Your task to perform on an android device: What is the recent news? Image 0: 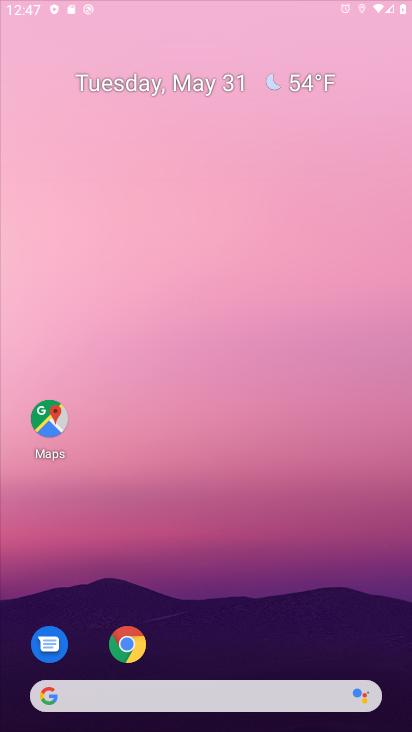
Step 0: press home button
Your task to perform on an android device: What is the recent news? Image 1: 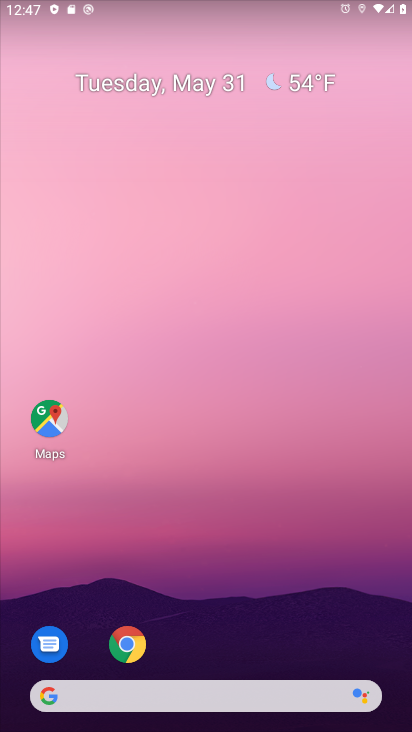
Step 1: click (53, 699)
Your task to perform on an android device: What is the recent news? Image 2: 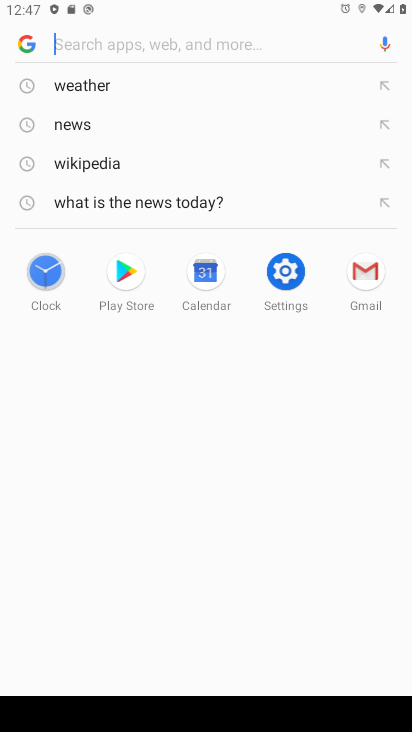
Step 2: type "recent news?"
Your task to perform on an android device: What is the recent news? Image 3: 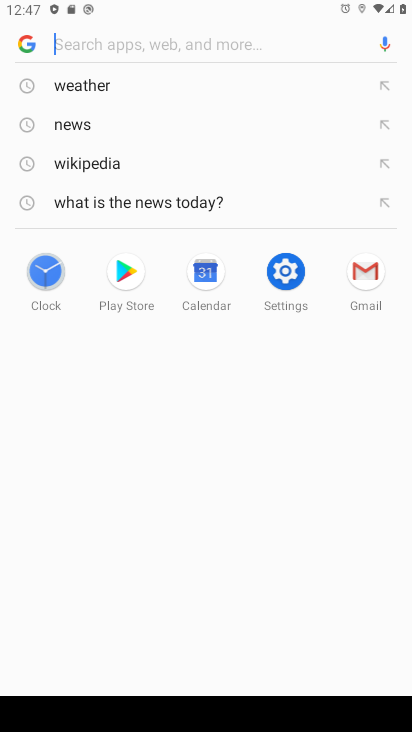
Step 3: click (220, 41)
Your task to perform on an android device: What is the recent news? Image 4: 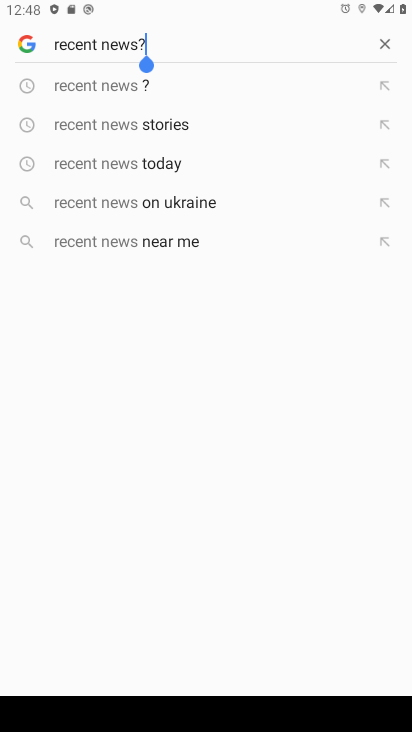
Step 4: click (118, 89)
Your task to perform on an android device: What is the recent news? Image 5: 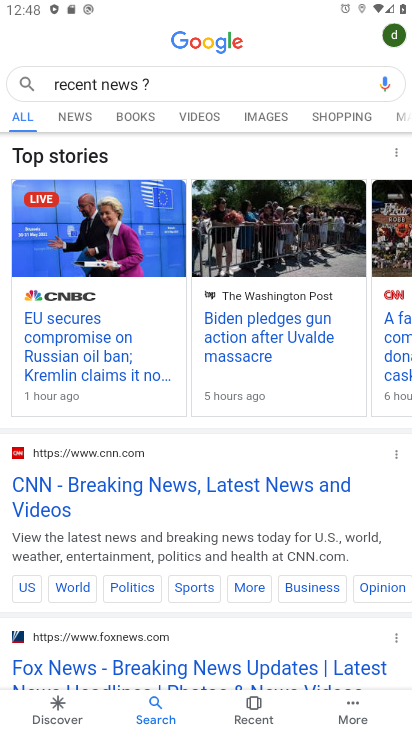
Step 5: task complete